Your task to perform on an android device: See recent photos Image 0: 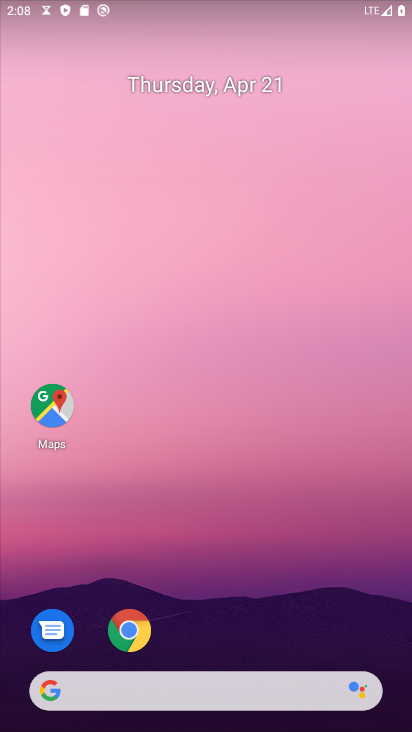
Step 0: drag from (353, 648) to (336, 79)
Your task to perform on an android device: See recent photos Image 1: 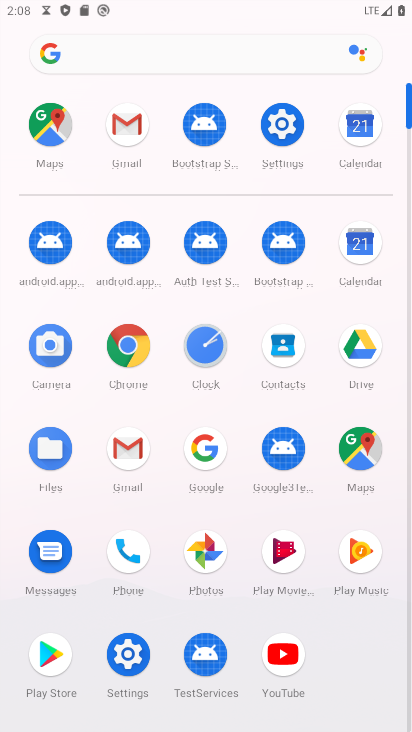
Step 1: click (210, 552)
Your task to perform on an android device: See recent photos Image 2: 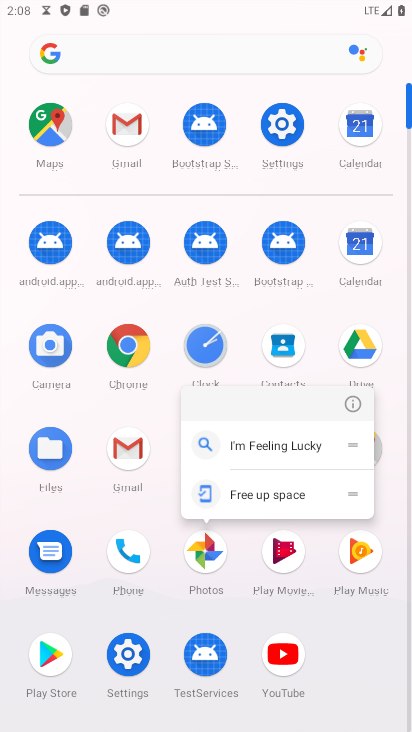
Step 2: click (214, 559)
Your task to perform on an android device: See recent photos Image 3: 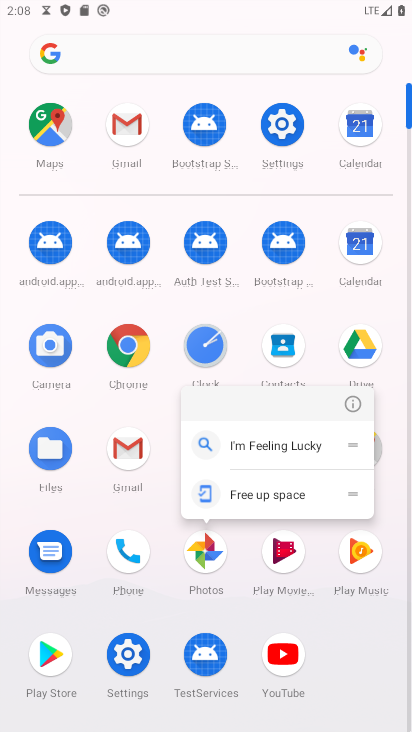
Step 3: click (202, 546)
Your task to perform on an android device: See recent photos Image 4: 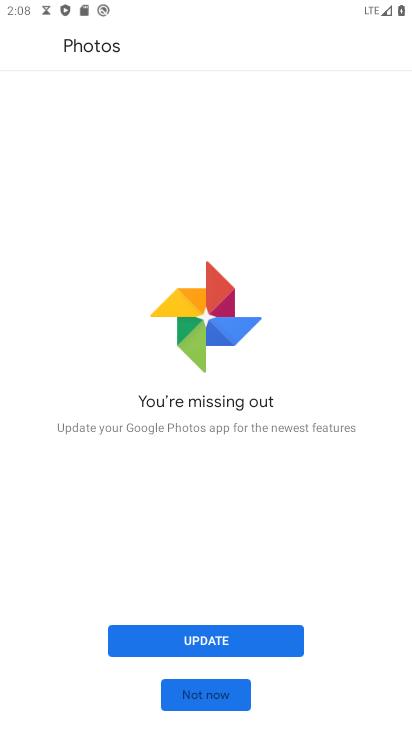
Step 4: click (182, 709)
Your task to perform on an android device: See recent photos Image 5: 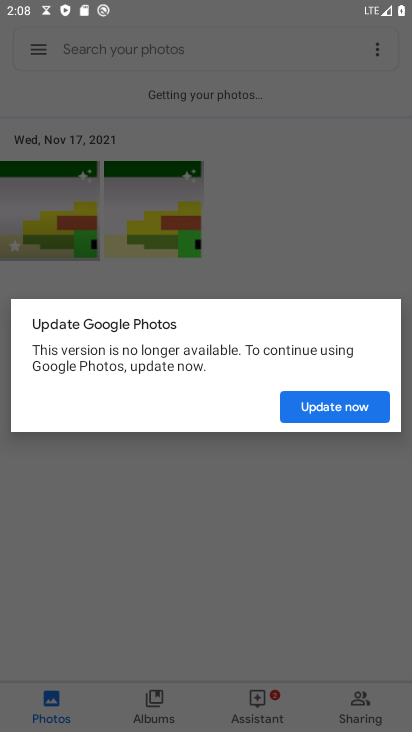
Step 5: click (316, 412)
Your task to perform on an android device: See recent photos Image 6: 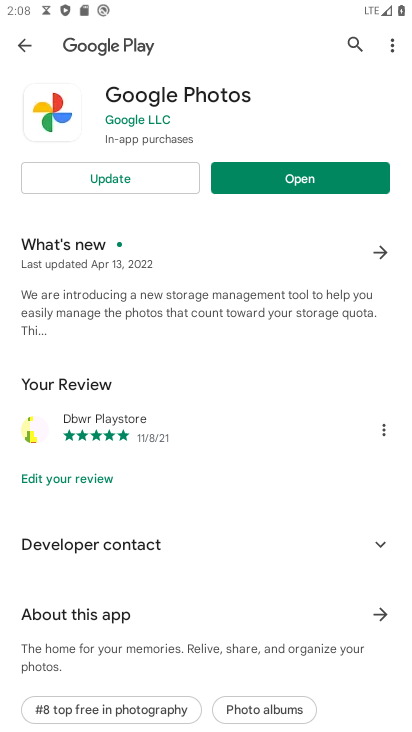
Step 6: click (145, 181)
Your task to perform on an android device: See recent photos Image 7: 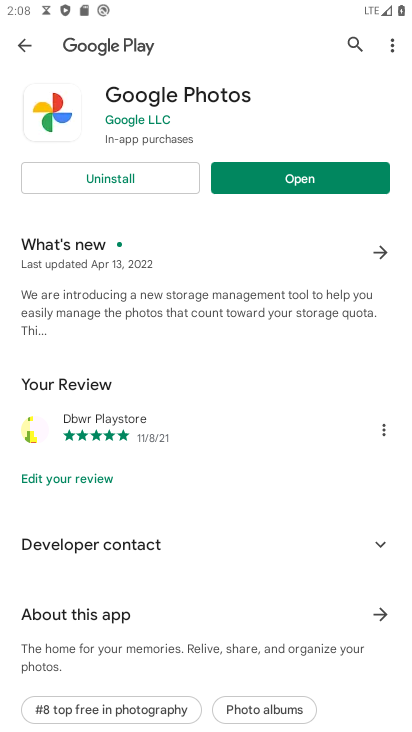
Step 7: click (233, 185)
Your task to perform on an android device: See recent photos Image 8: 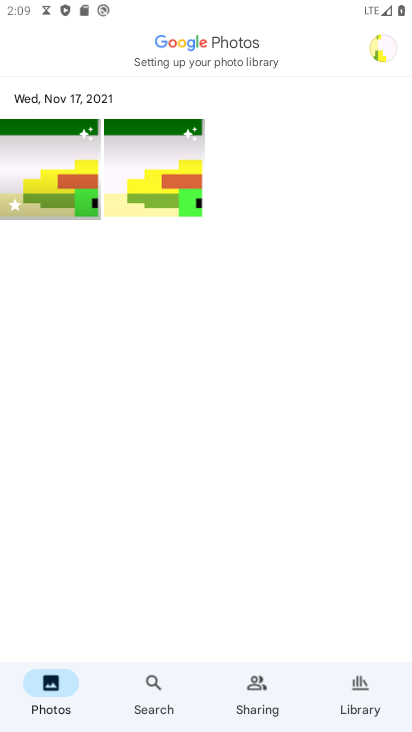
Step 8: click (362, 697)
Your task to perform on an android device: See recent photos Image 9: 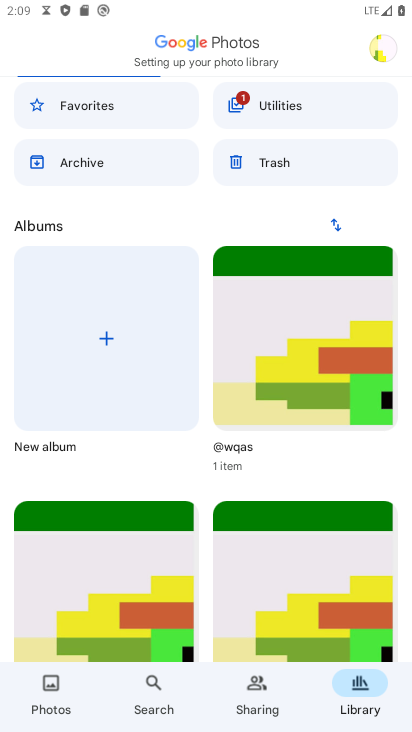
Step 9: drag from (285, 334) to (310, 456)
Your task to perform on an android device: See recent photos Image 10: 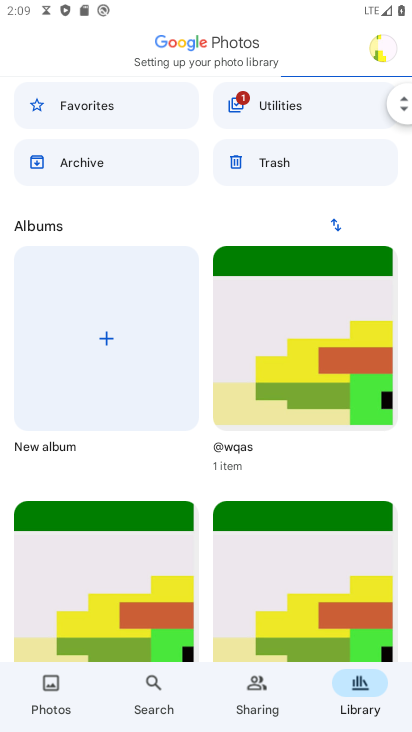
Step 10: click (387, 50)
Your task to perform on an android device: See recent photos Image 11: 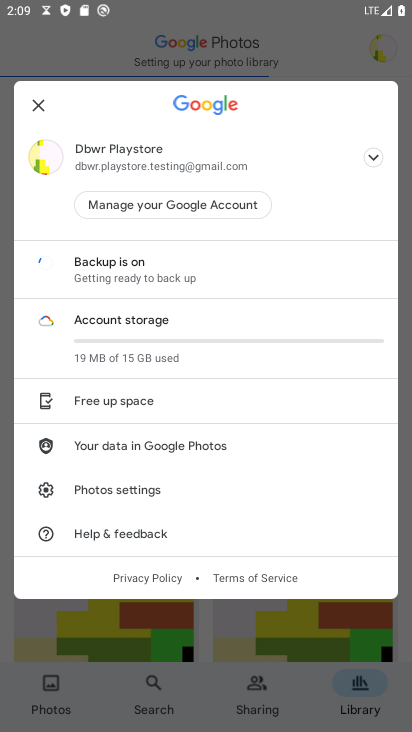
Step 11: click (37, 104)
Your task to perform on an android device: See recent photos Image 12: 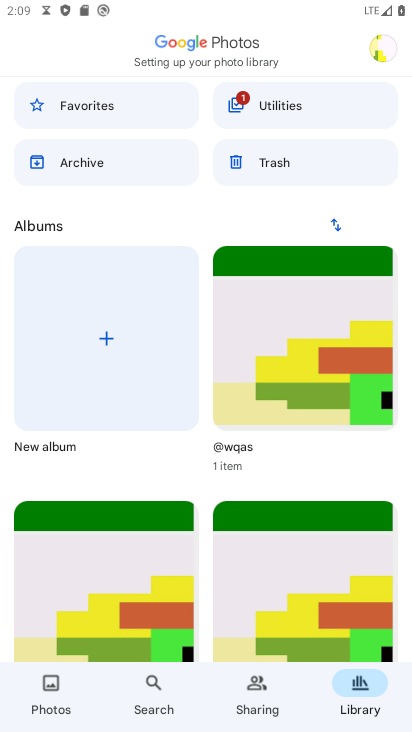
Step 12: drag from (236, 201) to (243, 373)
Your task to perform on an android device: See recent photos Image 13: 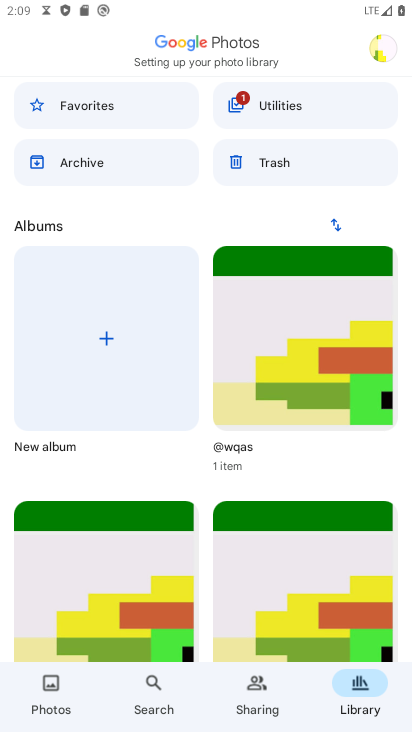
Step 13: click (281, 107)
Your task to perform on an android device: See recent photos Image 14: 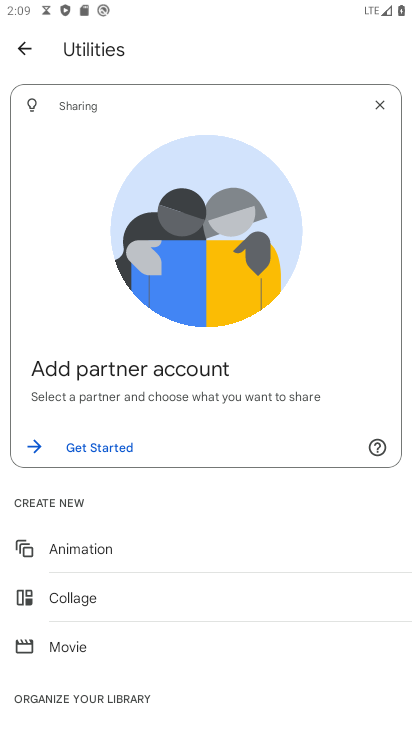
Step 14: drag from (230, 520) to (237, 190)
Your task to perform on an android device: See recent photos Image 15: 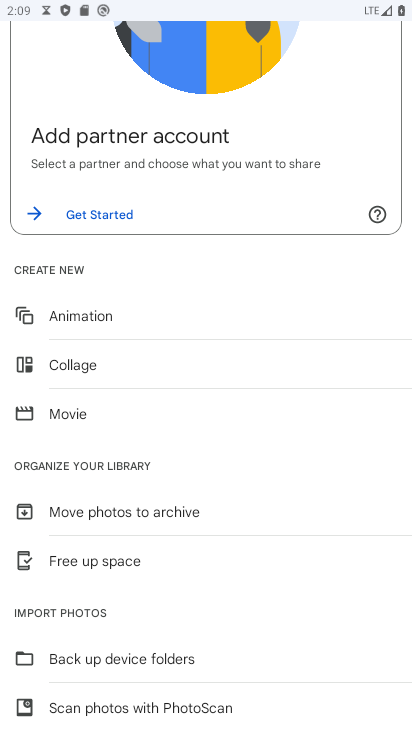
Step 15: drag from (149, 554) to (168, 297)
Your task to perform on an android device: See recent photos Image 16: 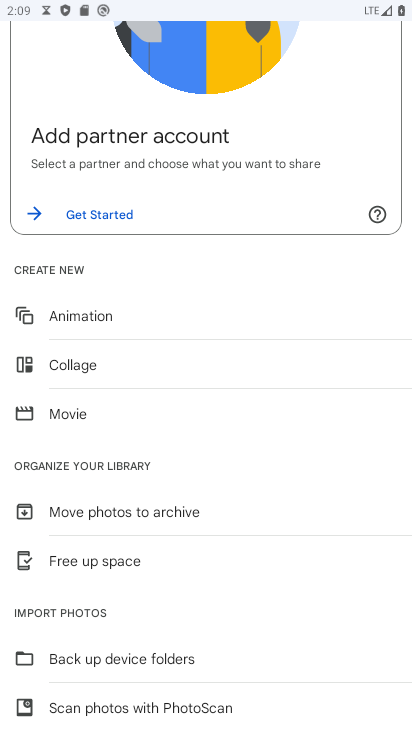
Step 16: drag from (174, 594) to (185, 389)
Your task to perform on an android device: See recent photos Image 17: 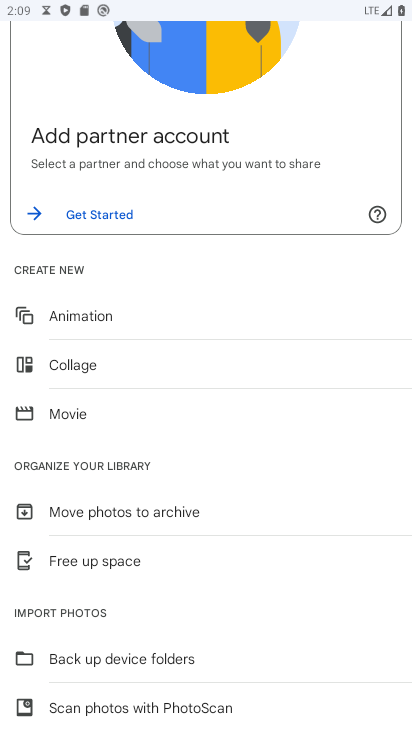
Step 17: drag from (216, 350) to (246, 589)
Your task to perform on an android device: See recent photos Image 18: 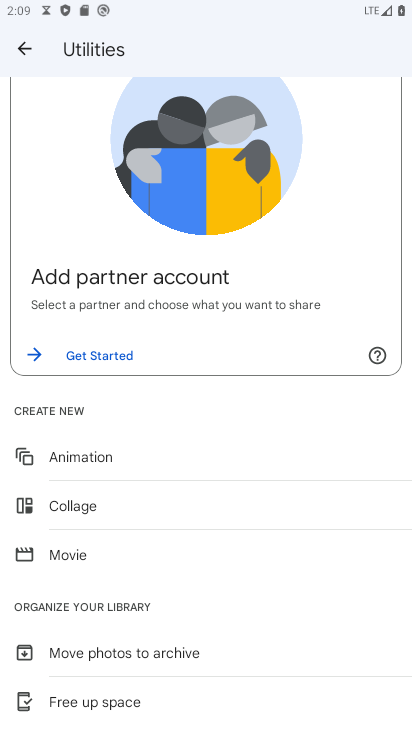
Step 18: click (23, 46)
Your task to perform on an android device: See recent photos Image 19: 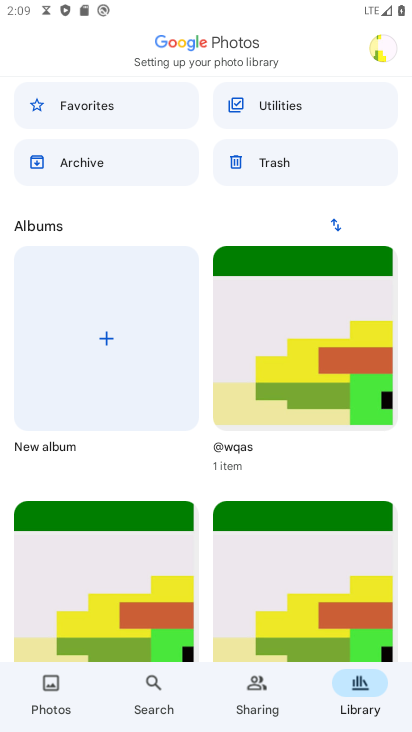
Step 19: click (115, 111)
Your task to perform on an android device: See recent photos Image 20: 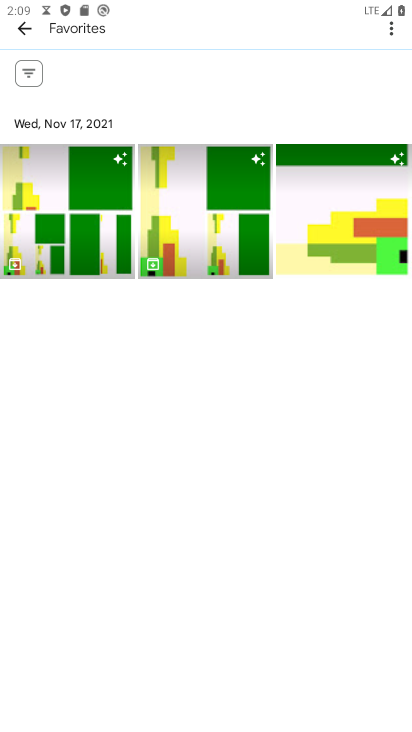
Step 20: click (31, 35)
Your task to perform on an android device: See recent photos Image 21: 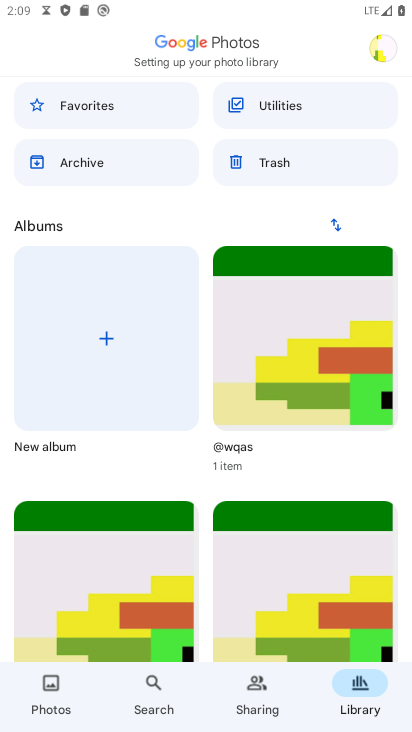
Step 21: drag from (272, 281) to (236, 385)
Your task to perform on an android device: See recent photos Image 22: 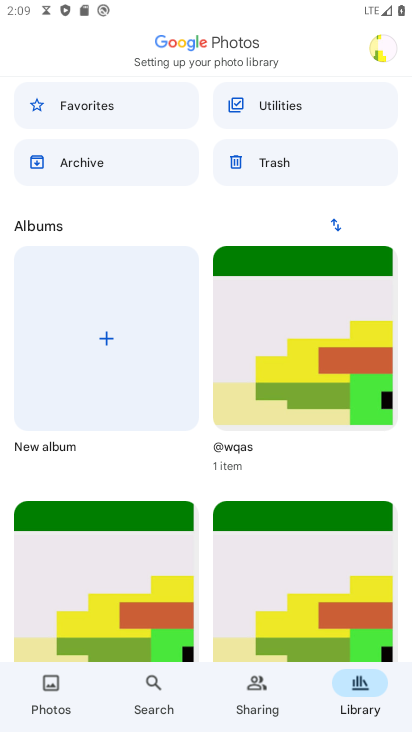
Step 22: drag from (227, 344) to (247, 172)
Your task to perform on an android device: See recent photos Image 23: 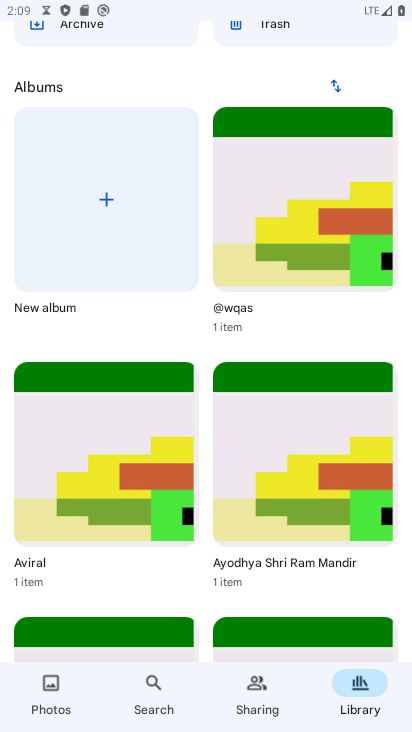
Step 23: drag from (260, 380) to (267, 139)
Your task to perform on an android device: See recent photos Image 24: 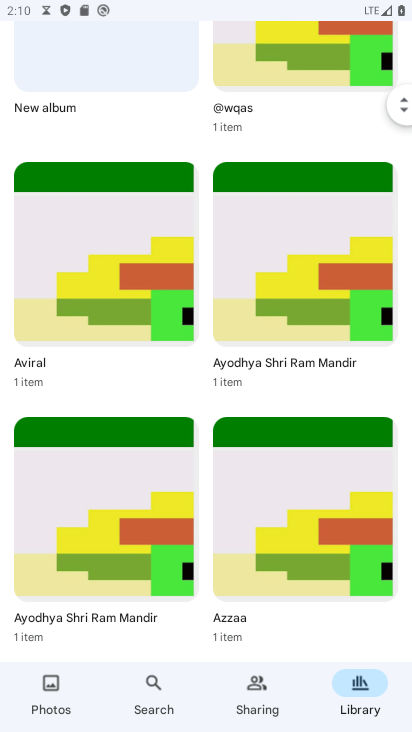
Step 24: drag from (228, 398) to (237, 139)
Your task to perform on an android device: See recent photos Image 25: 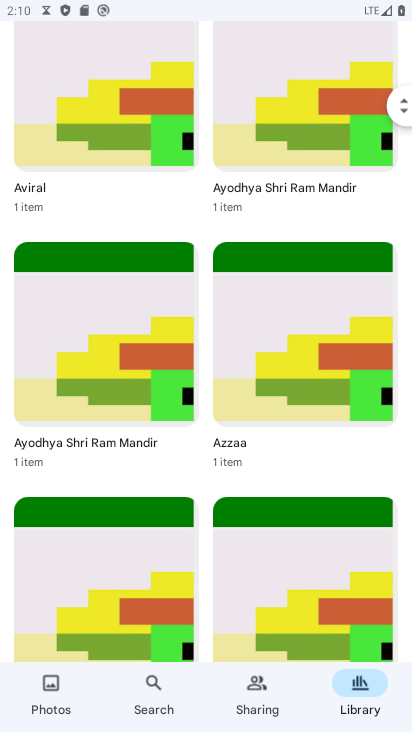
Step 25: drag from (250, 198) to (223, 535)
Your task to perform on an android device: See recent photos Image 26: 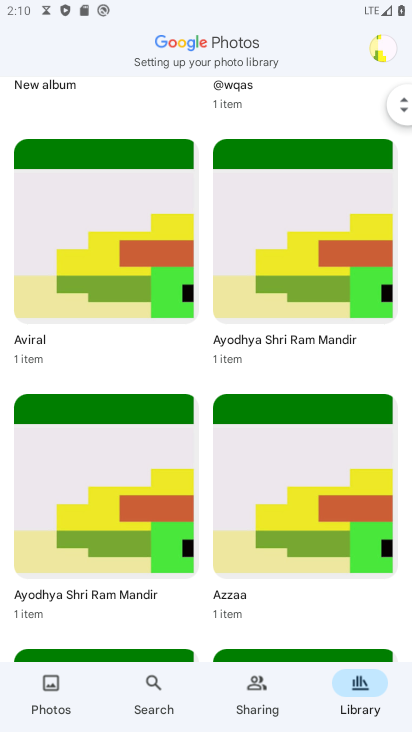
Step 26: drag from (208, 170) to (184, 521)
Your task to perform on an android device: See recent photos Image 27: 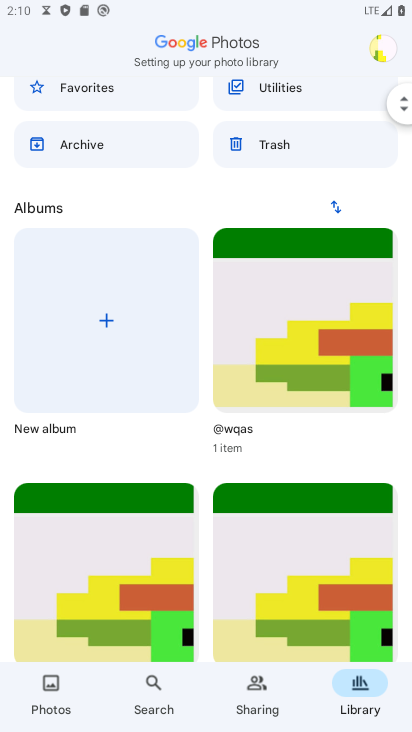
Step 27: drag from (224, 236) to (164, 530)
Your task to perform on an android device: See recent photos Image 28: 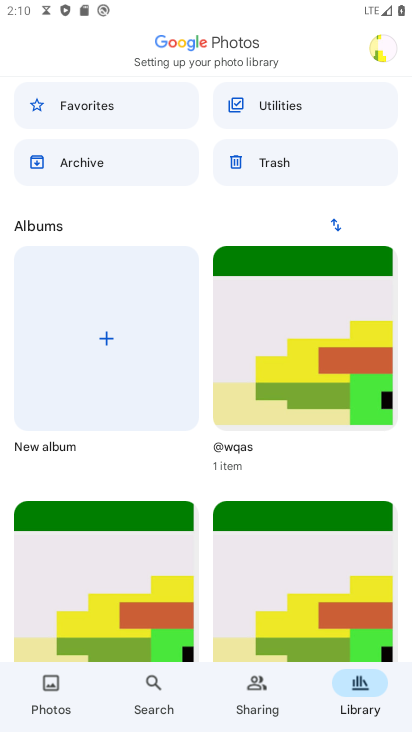
Step 28: drag from (295, 287) to (283, 407)
Your task to perform on an android device: See recent photos Image 29: 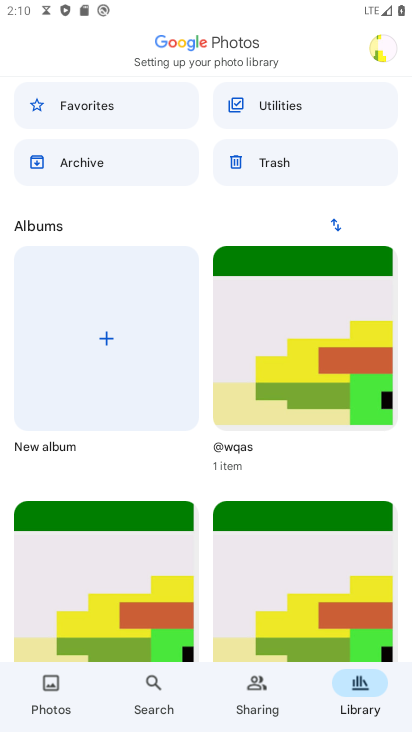
Step 29: click (335, 226)
Your task to perform on an android device: See recent photos Image 30: 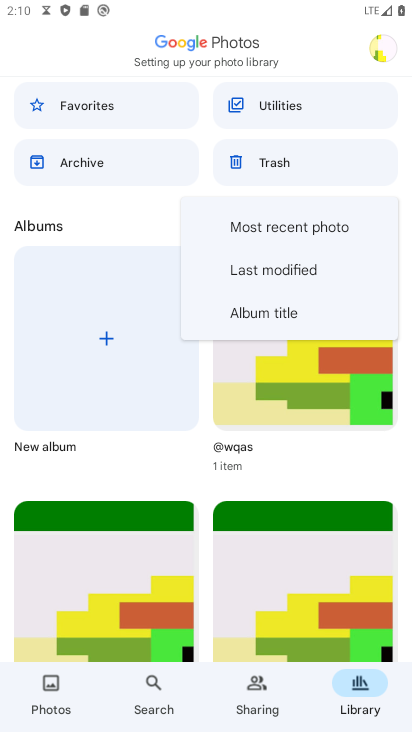
Step 30: click (285, 232)
Your task to perform on an android device: See recent photos Image 31: 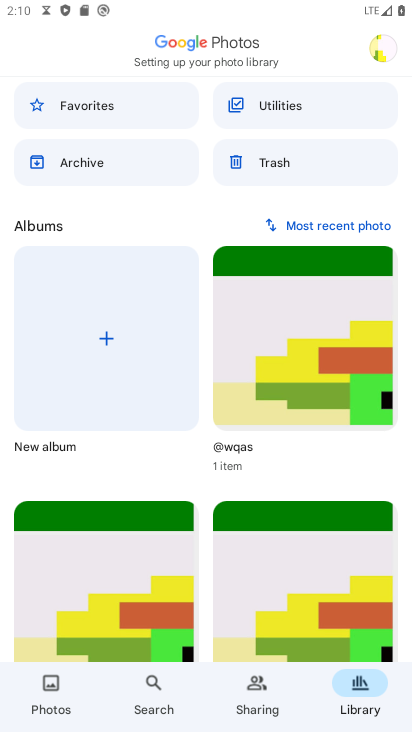
Step 31: task complete